Your task to perform on an android device: Show me the alarms in the clock app Image 0: 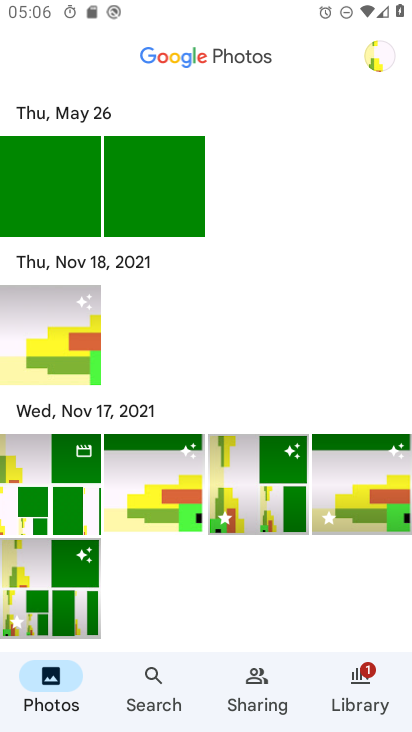
Step 0: press home button
Your task to perform on an android device: Show me the alarms in the clock app Image 1: 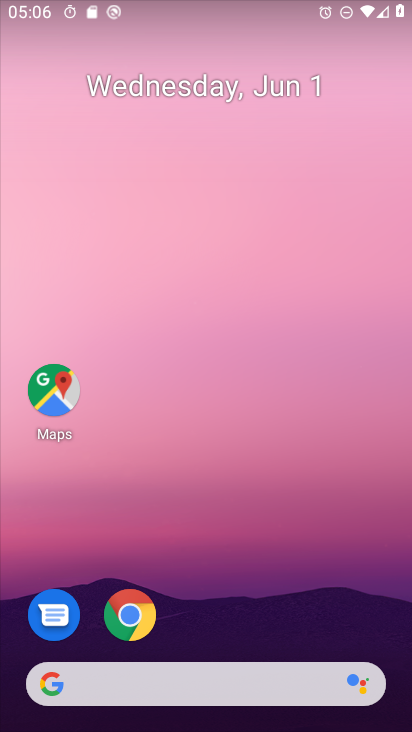
Step 1: drag from (237, 690) to (319, 61)
Your task to perform on an android device: Show me the alarms in the clock app Image 2: 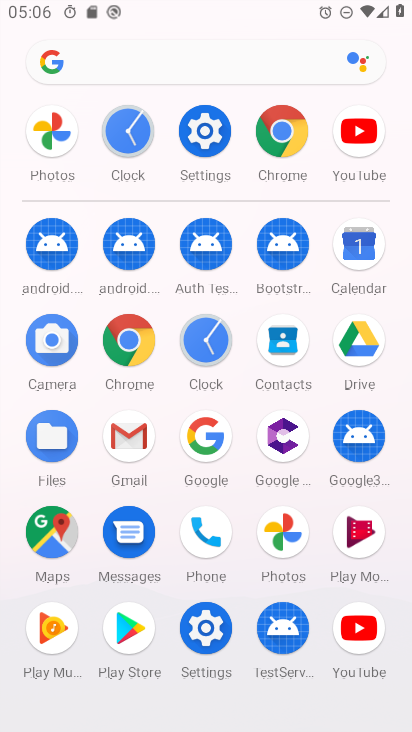
Step 2: click (207, 348)
Your task to perform on an android device: Show me the alarms in the clock app Image 3: 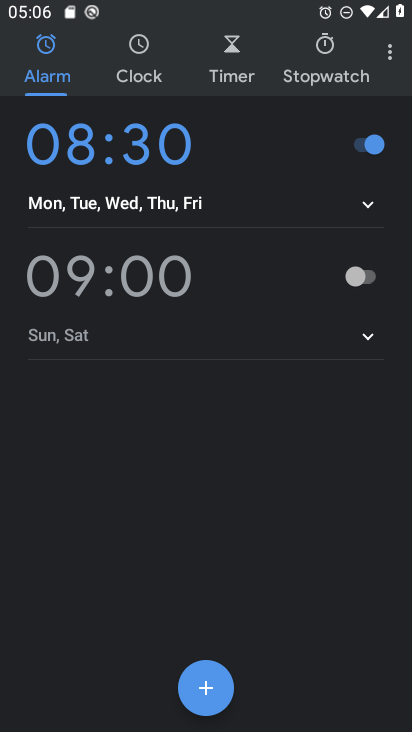
Step 3: task complete